Your task to perform on an android device: set the stopwatch Image 0: 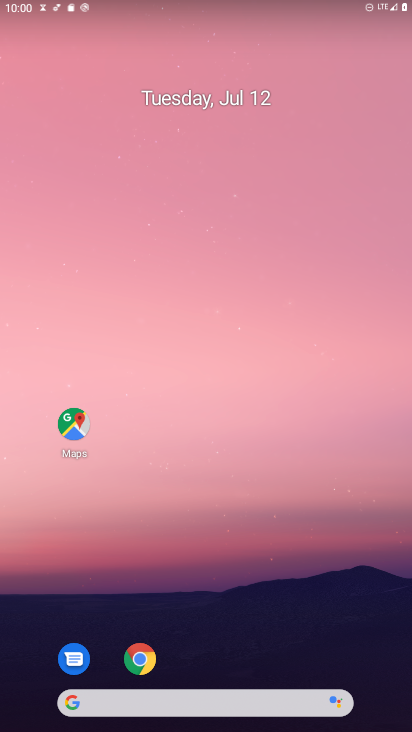
Step 0: drag from (258, 678) to (328, 132)
Your task to perform on an android device: set the stopwatch Image 1: 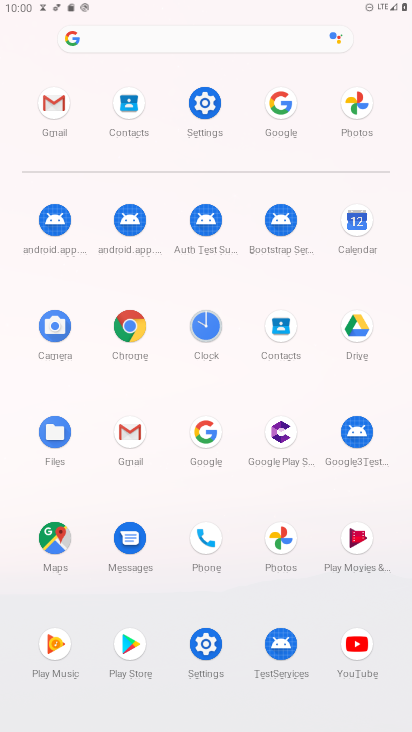
Step 1: click (207, 328)
Your task to perform on an android device: set the stopwatch Image 2: 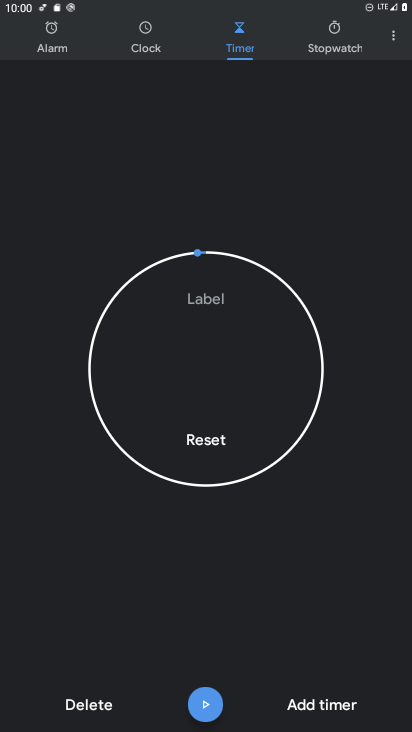
Step 2: click (333, 32)
Your task to perform on an android device: set the stopwatch Image 3: 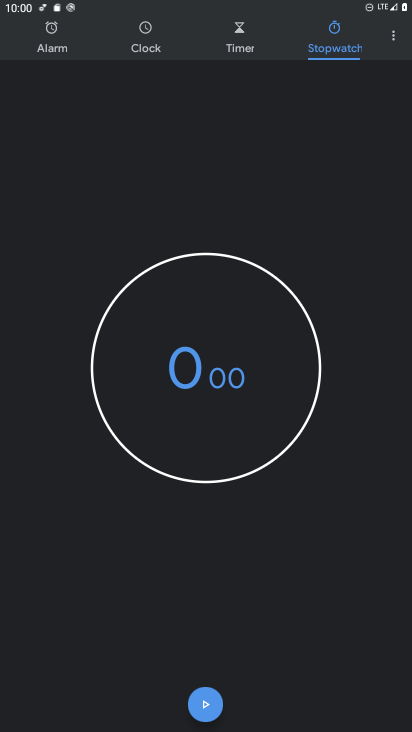
Step 3: click (203, 698)
Your task to perform on an android device: set the stopwatch Image 4: 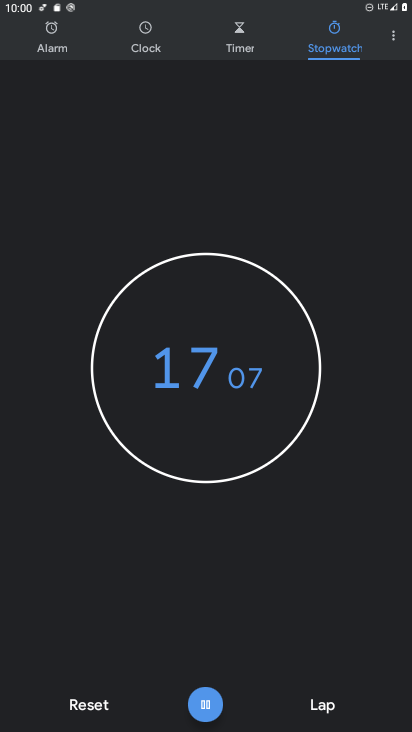
Step 4: click (209, 704)
Your task to perform on an android device: set the stopwatch Image 5: 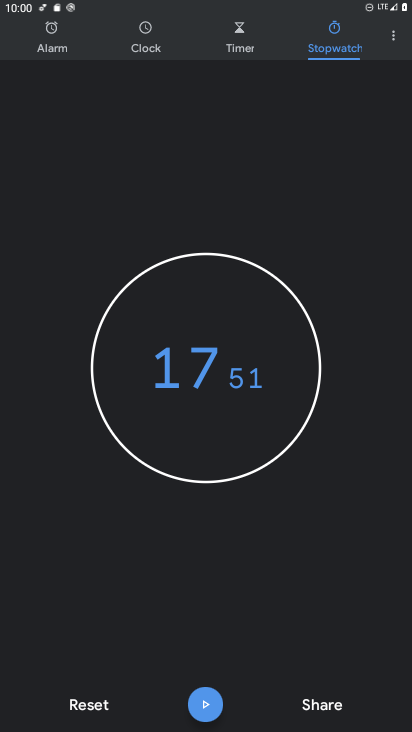
Step 5: task complete